Your task to perform on an android device: Show me recent news Image 0: 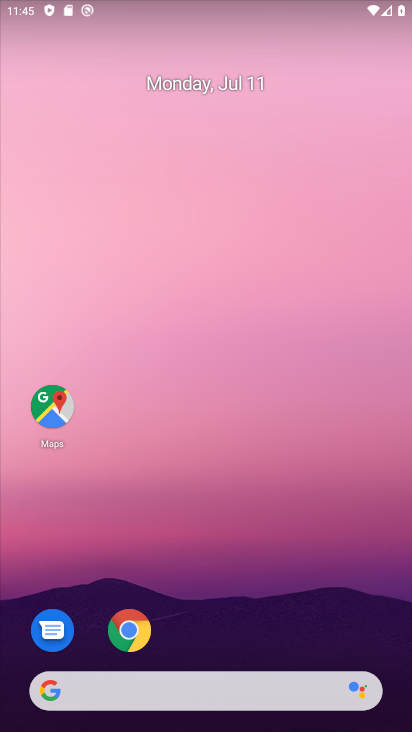
Step 0: drag from (211, 684) to (217, 55)
Your task to perform on an android device: Show me recent news Image 1: 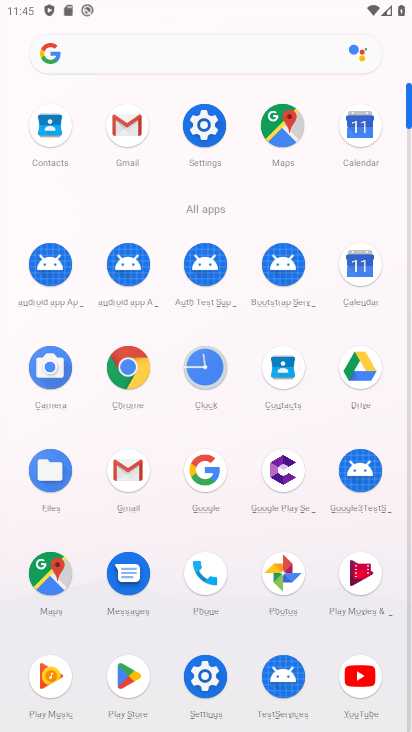
Step 1: click (203, 472)
Your task to perform on an android device: Show me recent news Image 2: 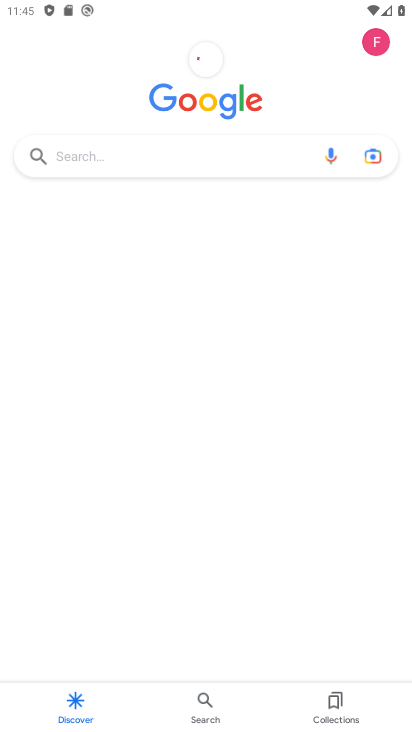
Step 2: click (145, 166)
Your task to perform on an android device: Show me recent news Image 3: 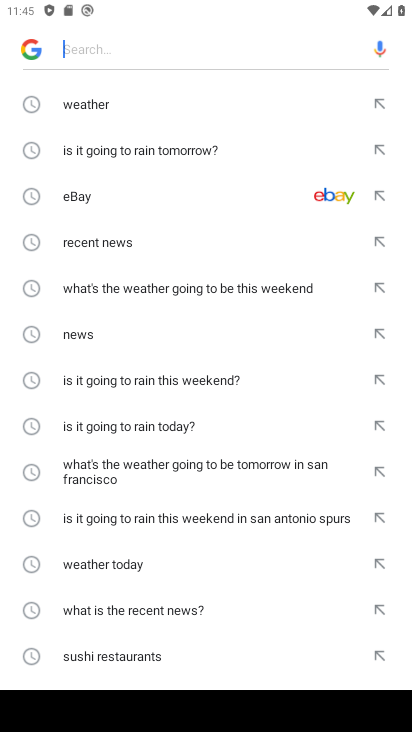
Step 3: click (117, 242)
Your task to perform on an android device: Show me recent news Image 4: 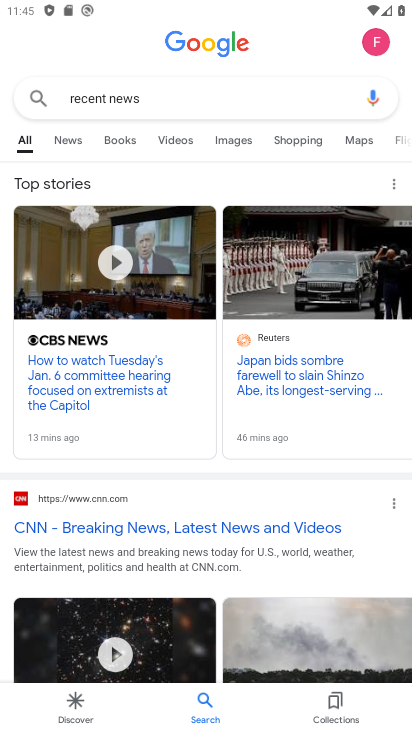
Step 4: click (79, 362)
Your task to perform on an android device: Show me recent news Image 5: 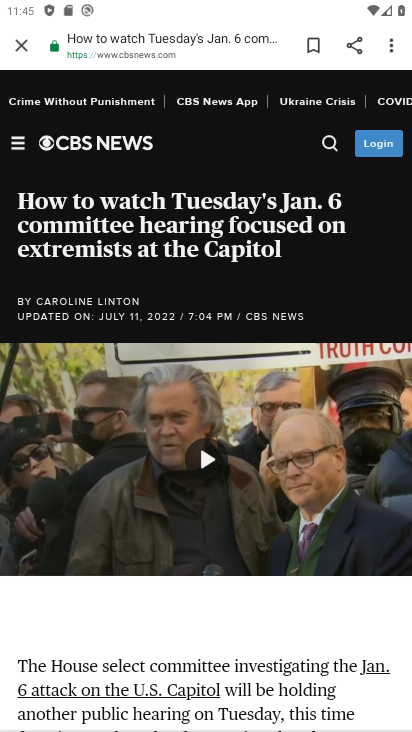
Step 5: task complete